Your task to perform on an android device: turn off picture-in-picture Image 0: 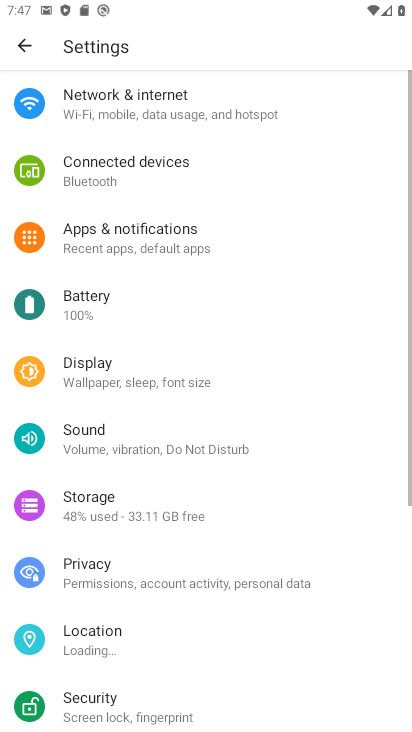
Step 0: drag from (173, 636) to (253, 330)
Your task to perform on an android device: turn off picture-in-picture Image 1: 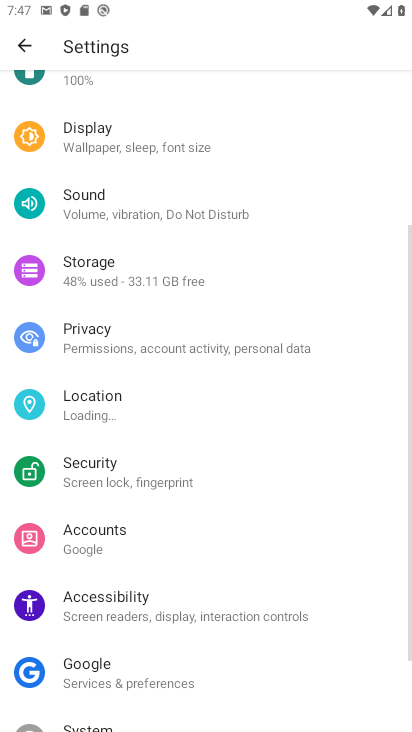
Step 1: drag from (247, 193) to (223, 563)
Your task to perform on an android device: turn off picture-in-picture Image 2: 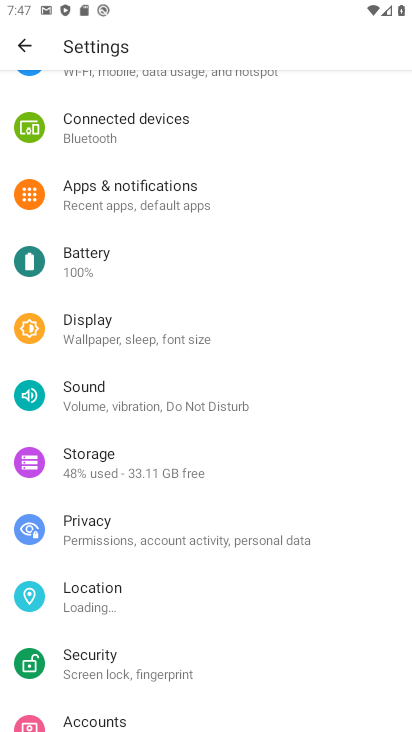
Step 2: click (185, 197)
Your task to perform on an android device: turn off picture-in-picture Image 3: 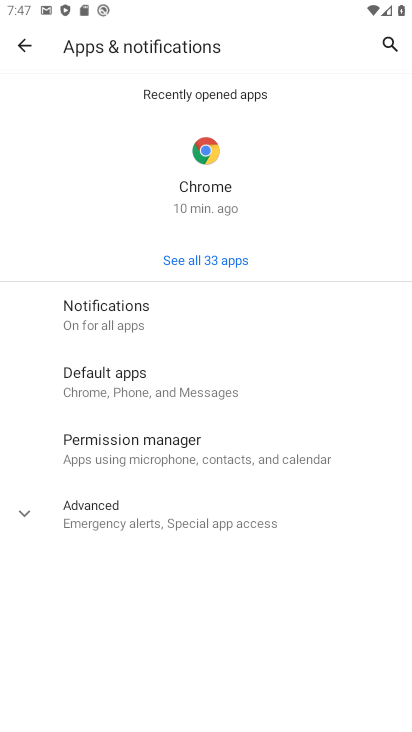
Step 3: click (145, 532)
Your task to perform on an android device: turn off picture-in-picture Image 4: 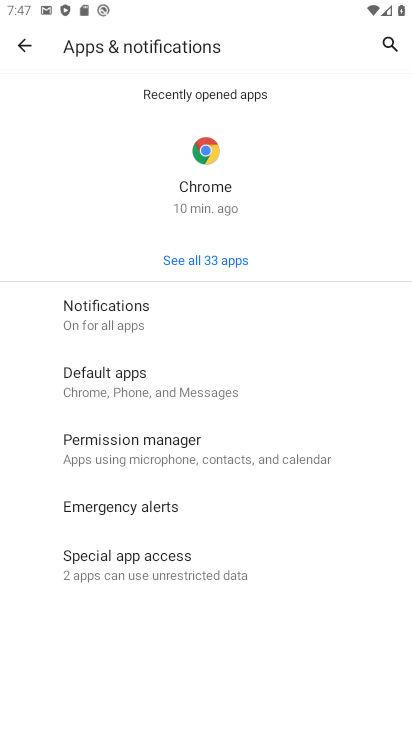
Step 4: click (143, 564)
Your task to perform on an android device: turn off picture-in-picture Image 5: 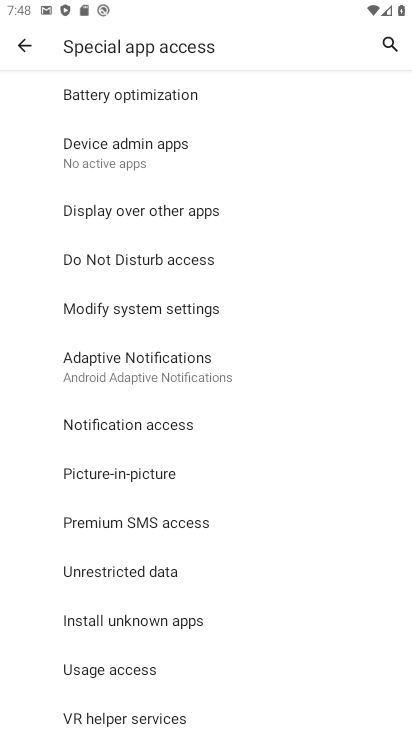
Step 5: drag from (147, 576) to (184, 600)
Your task to perform on an android device: turn off picture-in-picture Image 6: 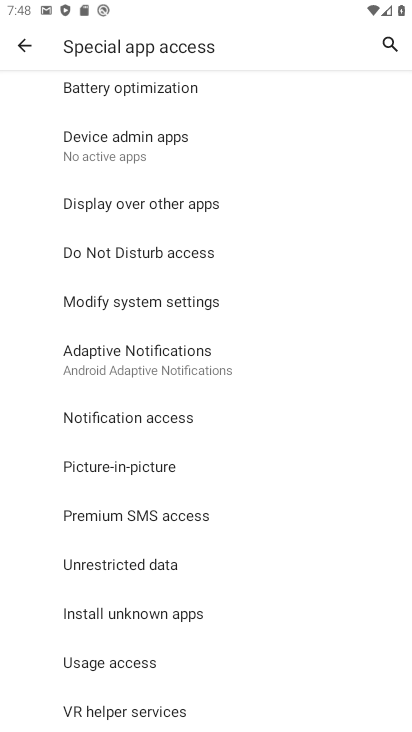
Step 6: click (164, 473)
Your task to perform on an android device: turn off picture-in-picture Image 7: 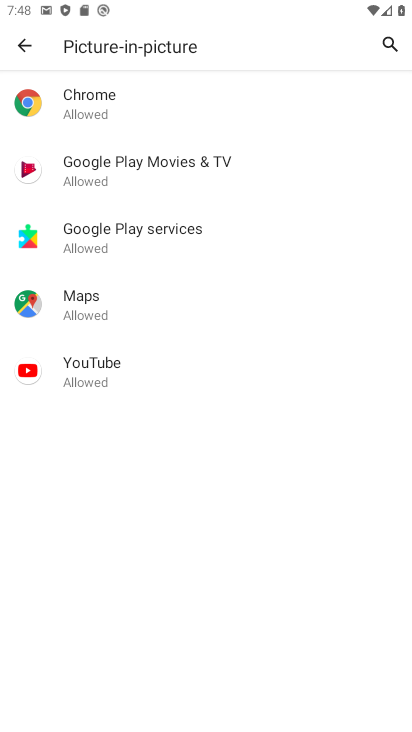
Step 7: click (171, 125)
Your task to perform on an android device: turn off picture-in-picture Image 8: 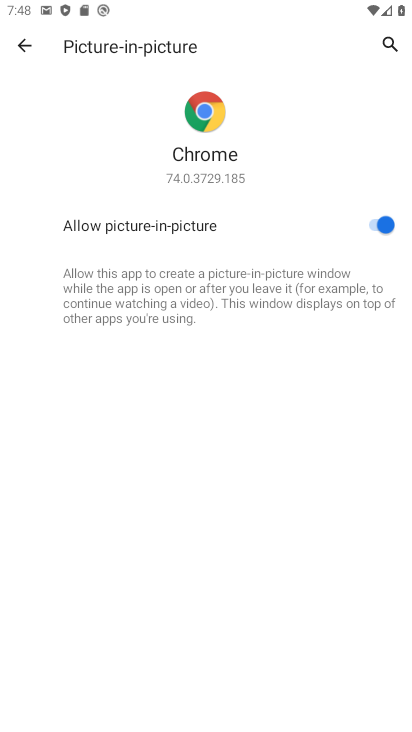
Step 8: click (377, 222)
Your task to perform on an android device: turn off picture-in-picture Image 9: 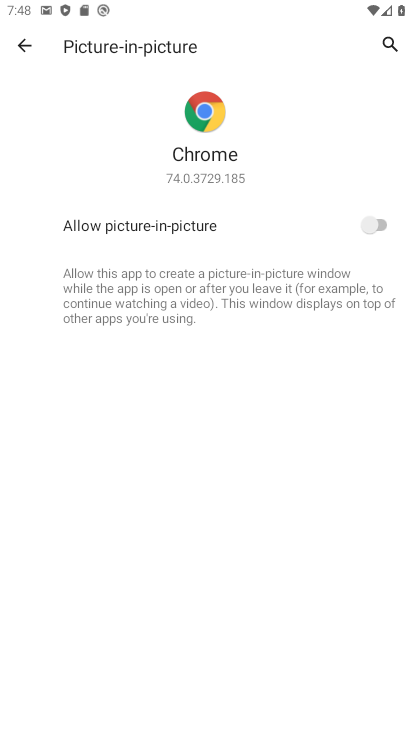
Step 9: press back button
Your task to perform on an android device: turn off picture-in-picture Image 10: 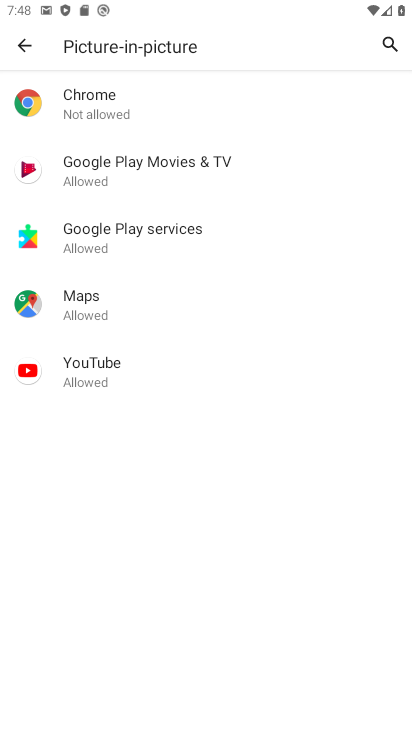
Step 10: click (182, 175)
Your task to perform on an android device: turn off picture-in-picture Image 11: 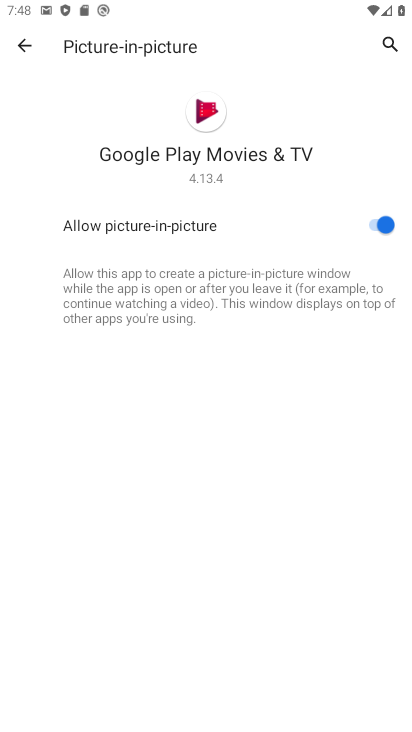
Step 11: click (368, 224)
Your task to perform on an android device: turn off picture-in-picture Image 12: 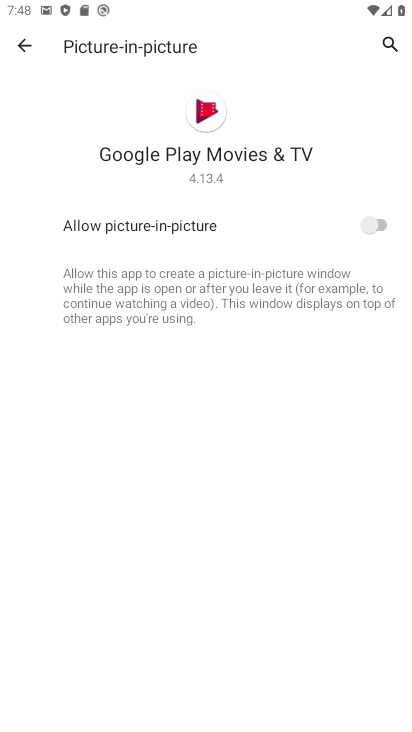
Step 12: press back button
Your task to perform on an android device: turn off picture-in-picture Image 13: 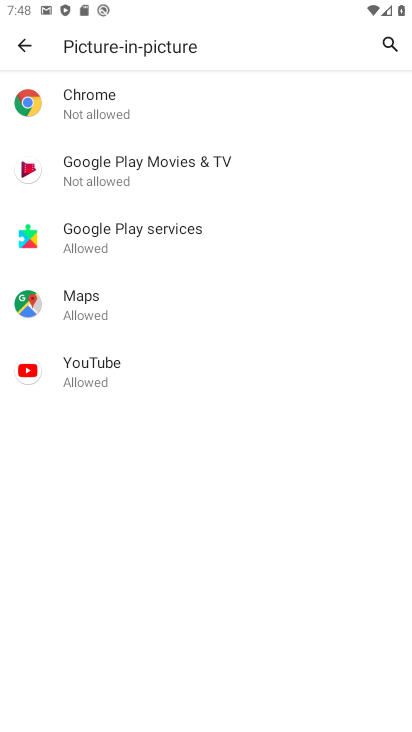
Step 13: click (177, 238)
Your task to perform on an android device: turn off picture-in-picture Image 14: 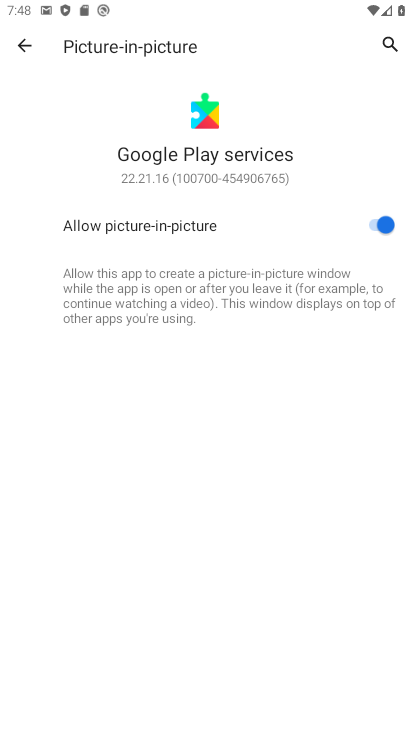
Step 14: click (372, 218)
Your task to perform on an android device: turn off picture-in-picture Image 15: 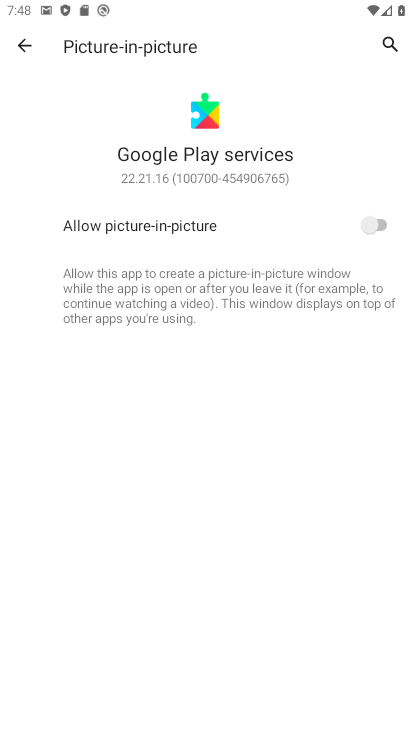
Step 15: press back button
Your task to perform on an android device: turn off picture-in-picture Image 16: 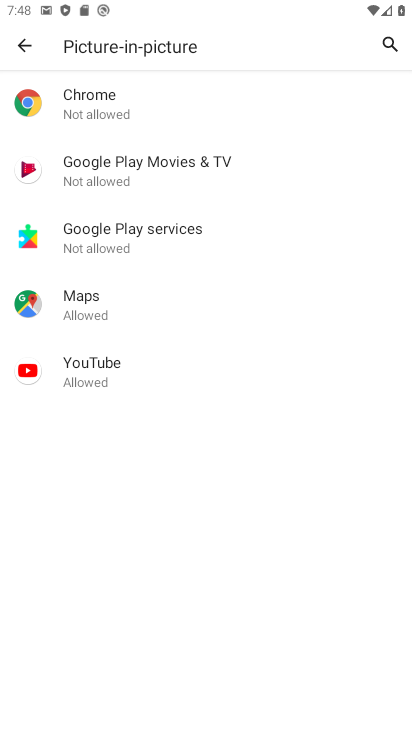
Step 16: click (129, 308)
Your task to perform on an android device: turn off picture-in-picture Image 17: 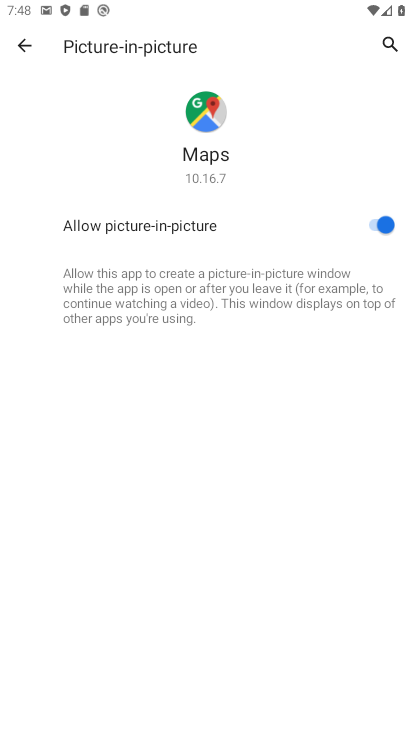
Step 17: click (387, 209)
Your task to perform on an android device: turn off picture-in-picture Image 18: 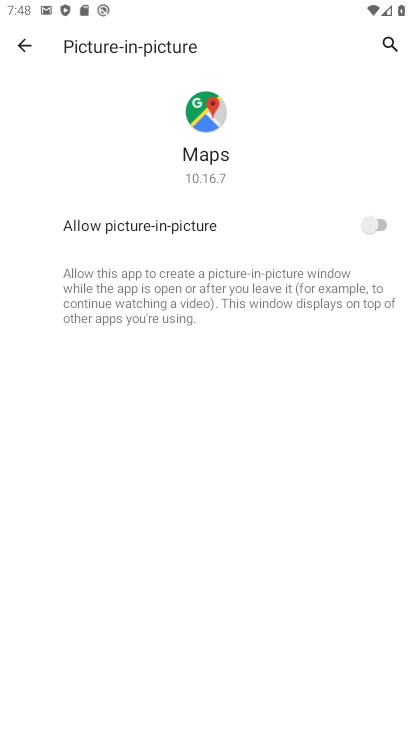
Step 18: press back button
Your task to perform on an android device: turn off picture-in-picture Image 19: 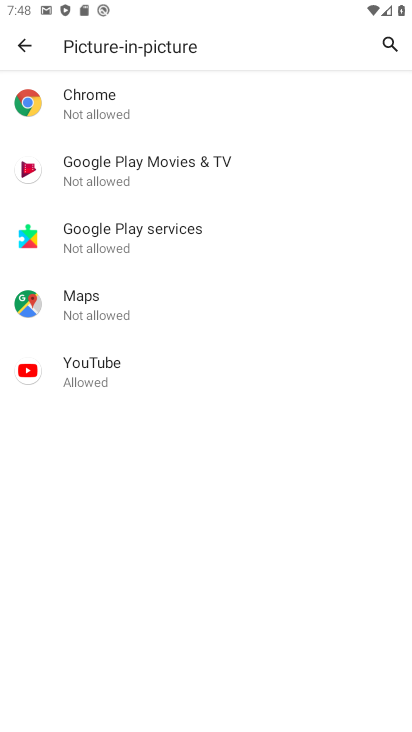
Step 19: click (201, 395)
Your task to perform on an android device: turn off picture-in-picture Image 20: 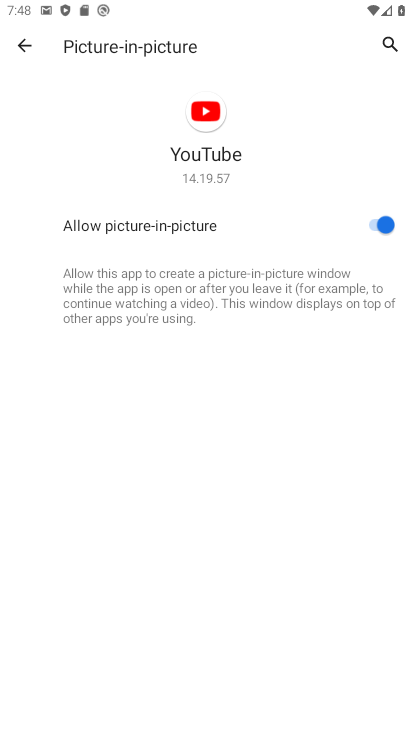
Step 20: click (364, 224)
Your task to perform on an android device: turn off picture-in-picture Image 21: 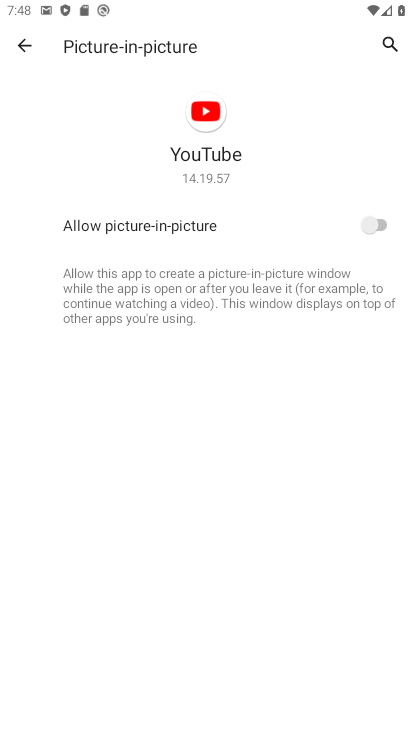
Step 21: task complete